Your task to perform on an android device: clear history in the chrome app Image 0: 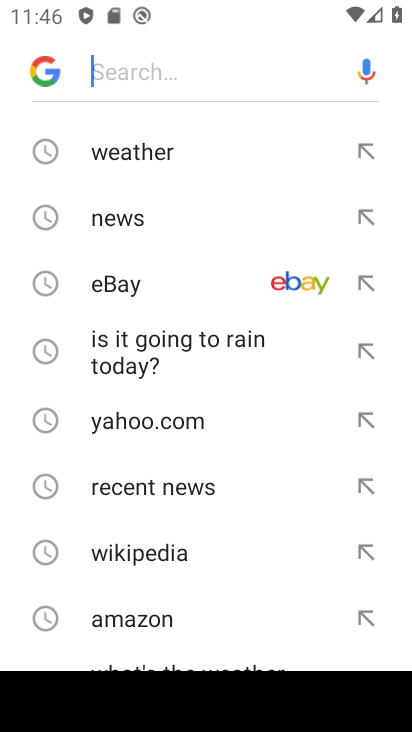
Step 0: press home button
Your task to perform on an android device: clear history in the chrome app Image 1: 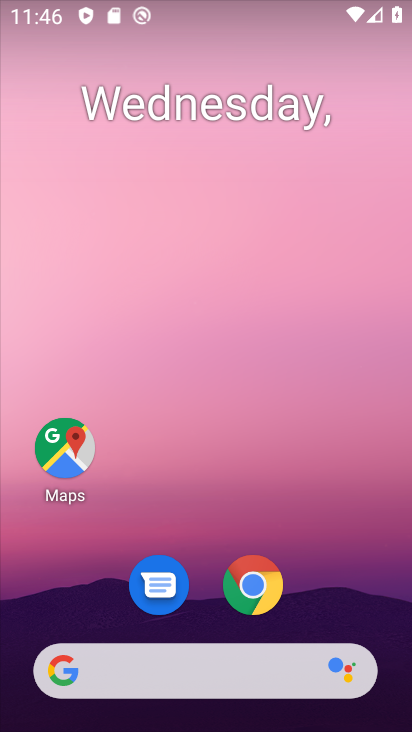
Step 1: drag from (213, 512) to (218, 35)
Your task to perform on an android device: clear history in the chrome app Image 2: 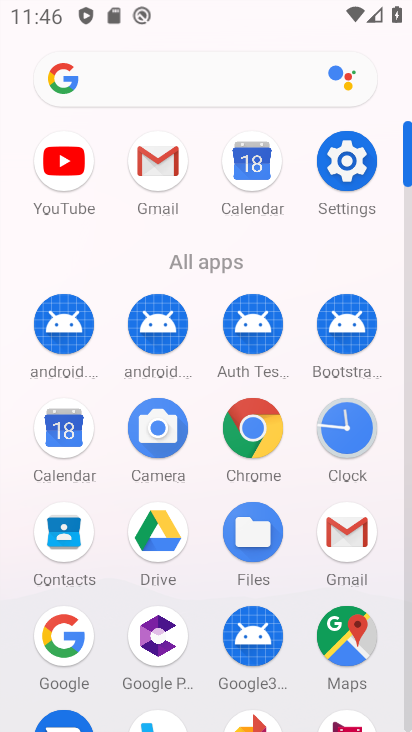
Step 2: click (252, 435)
Your task to perform on an android device: clear history in the chrome app Image 3: 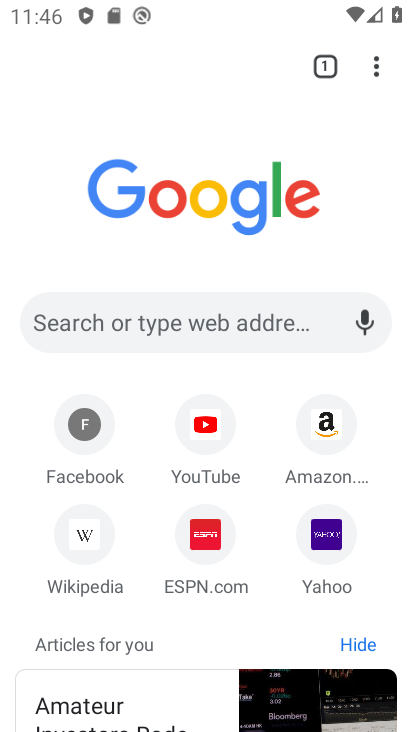
Step 3: click (377, 71)
Your task to perform on an android device: clear history in the chrome app Image 4: 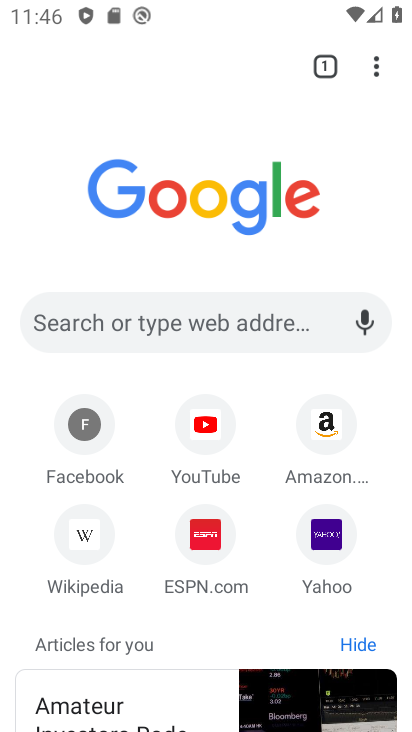
Step 4: task complete